Your task to perform on an android device: set an alarm Image 0: 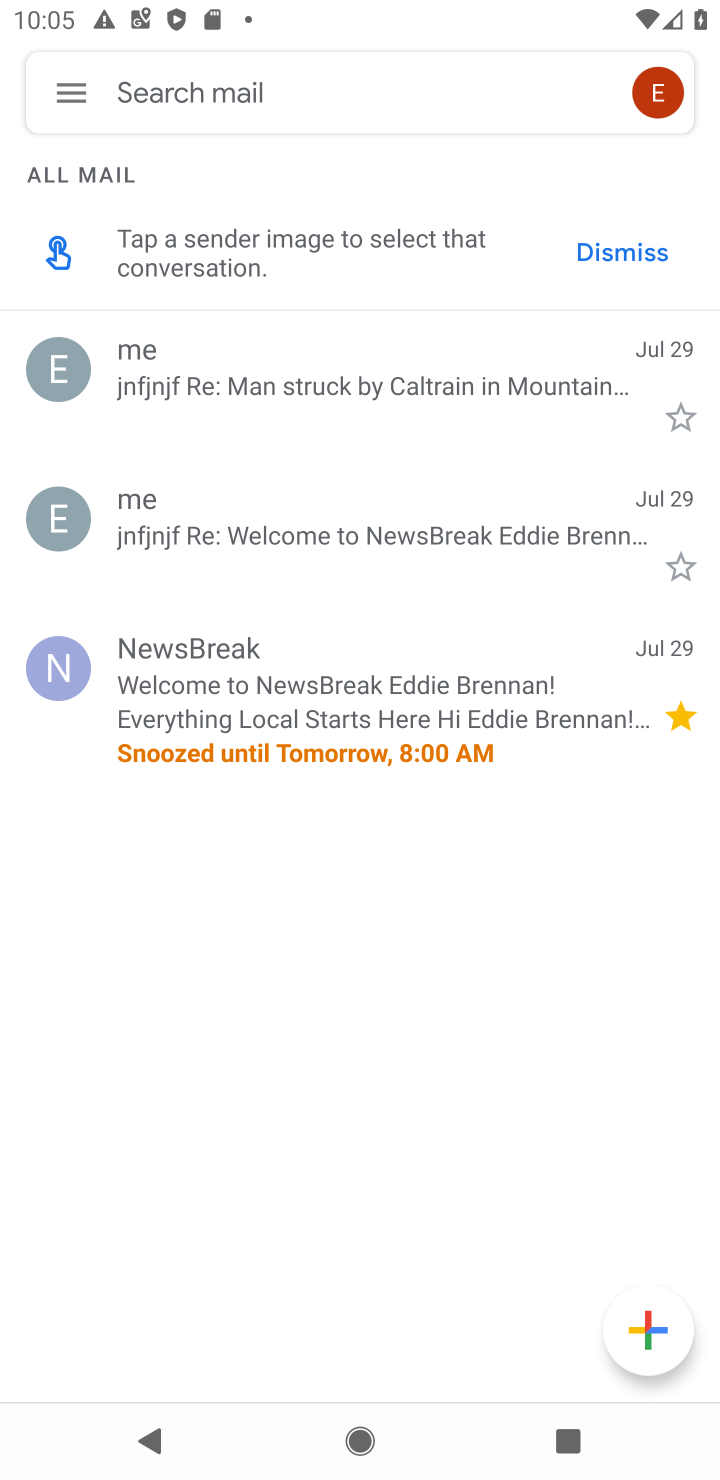
Step 0: press home button
Your task to perform on an android device: set an alarm Image 1: 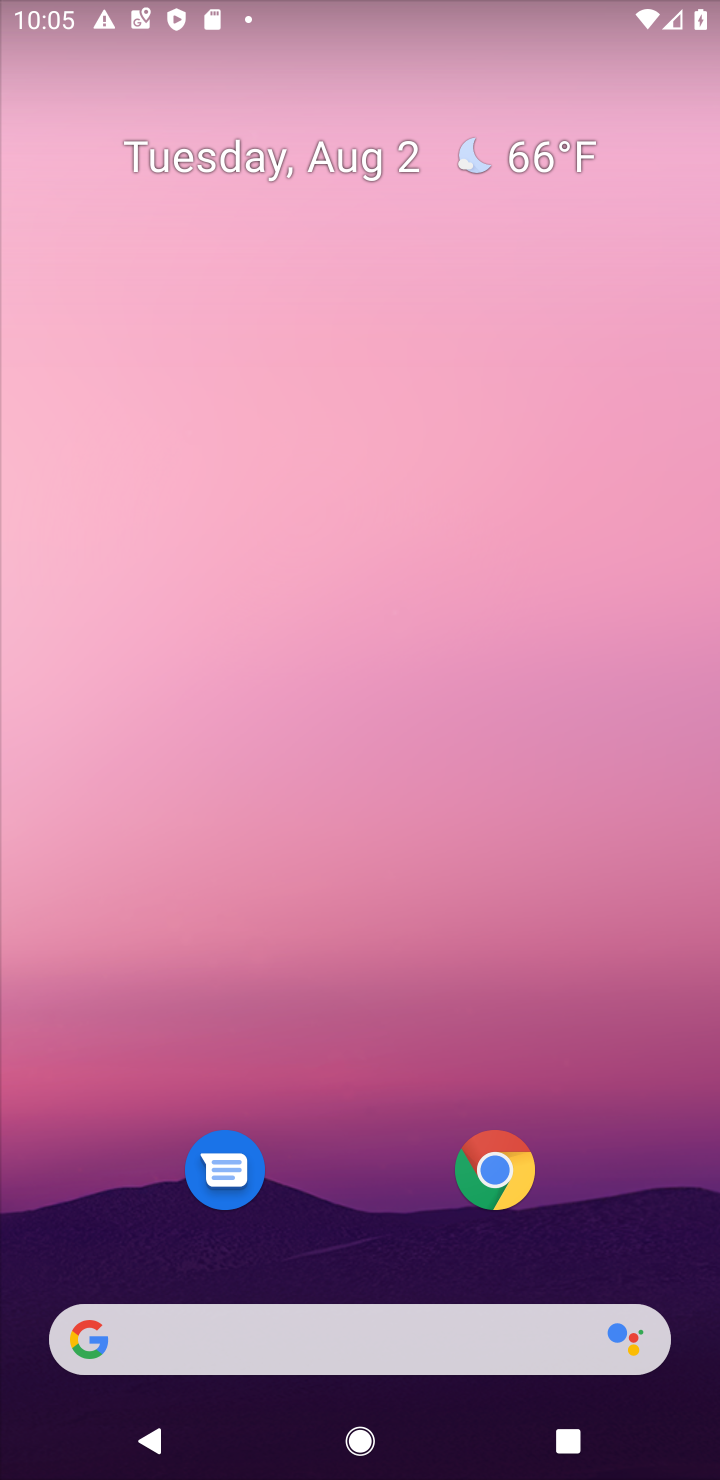
Step 1: drag from (310, 1153) to (198, 276)
Your task to perform on an android device: set an alarm Image 2: 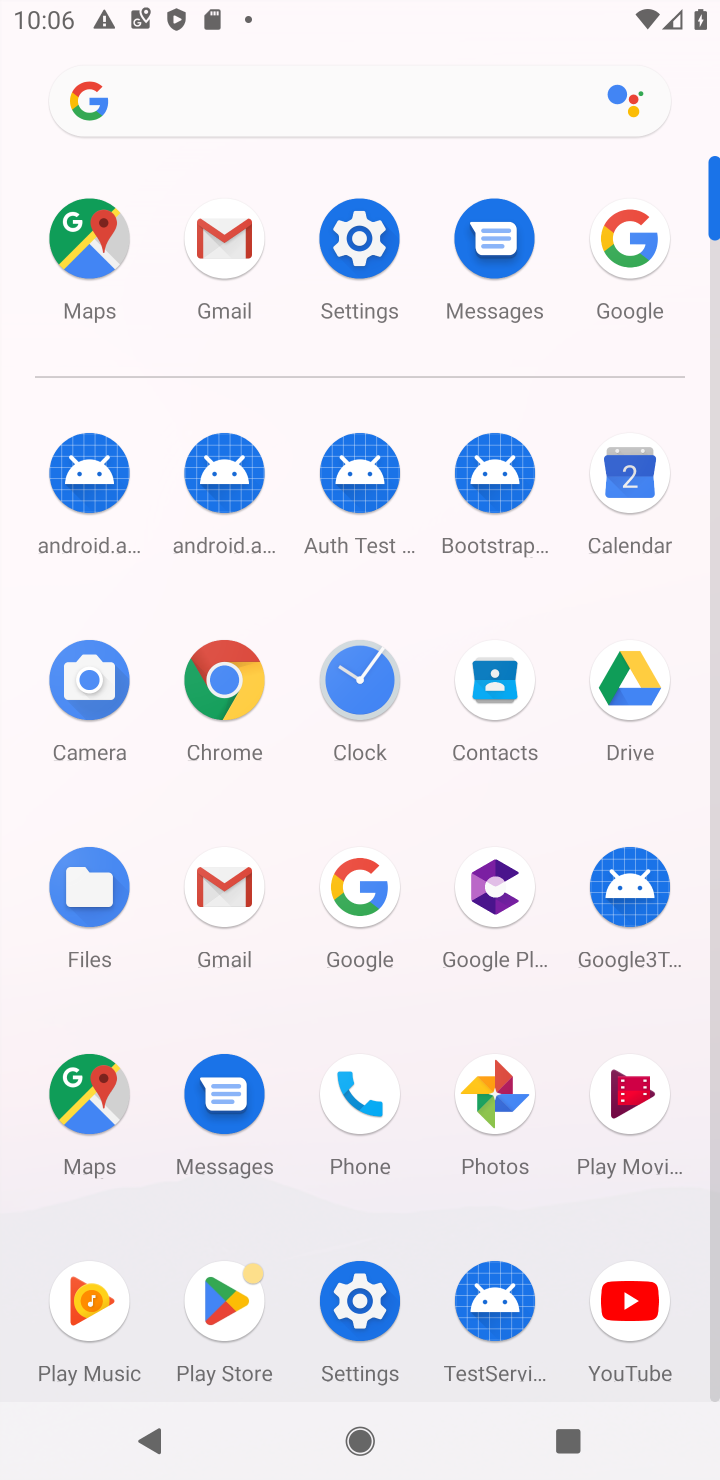
Step 2: click (351, 693)
Your task to perform on an android device: set an alarm Image 3: 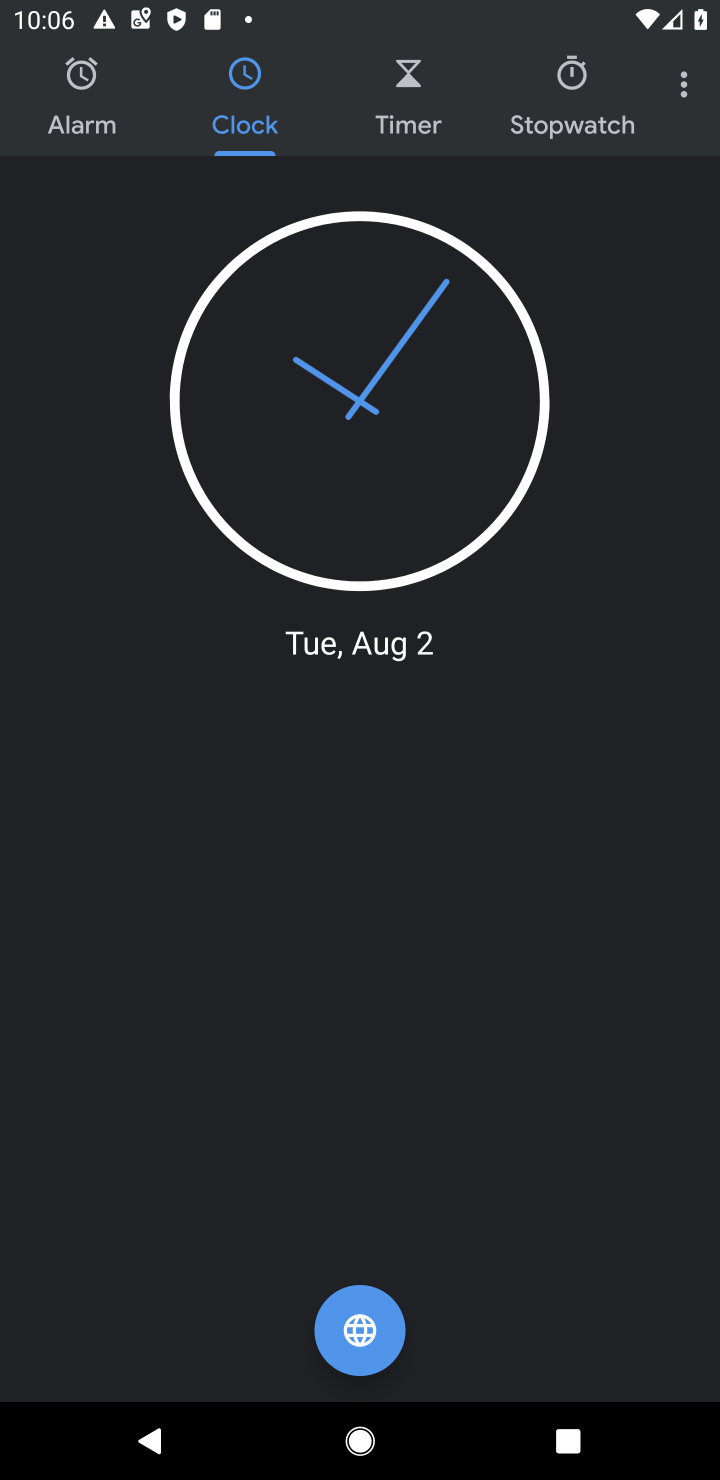
Step 3: click (62, 123)
Your task to perform on an android device: set an alarm Image 4: 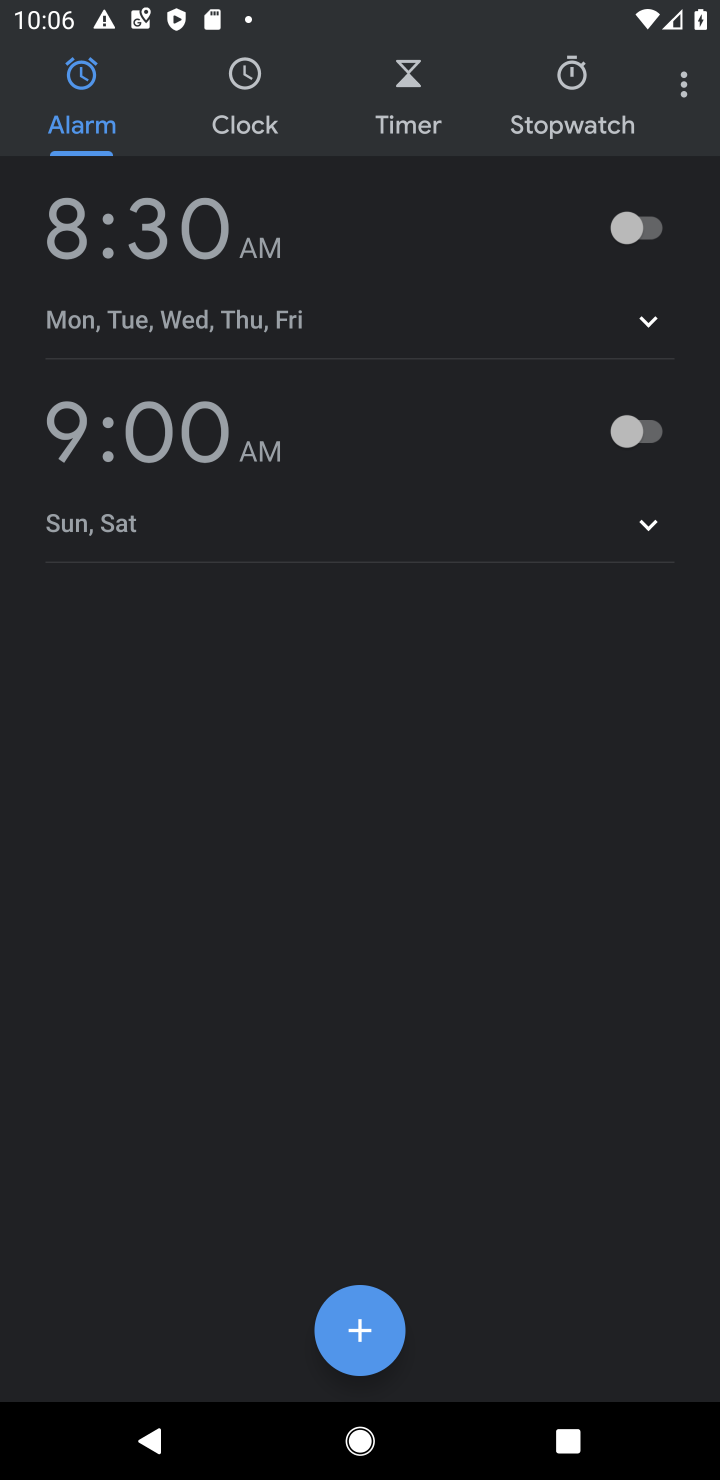
Step 4: click (658, 246)
Your task to perform on an android device: set an alarm Image 5: 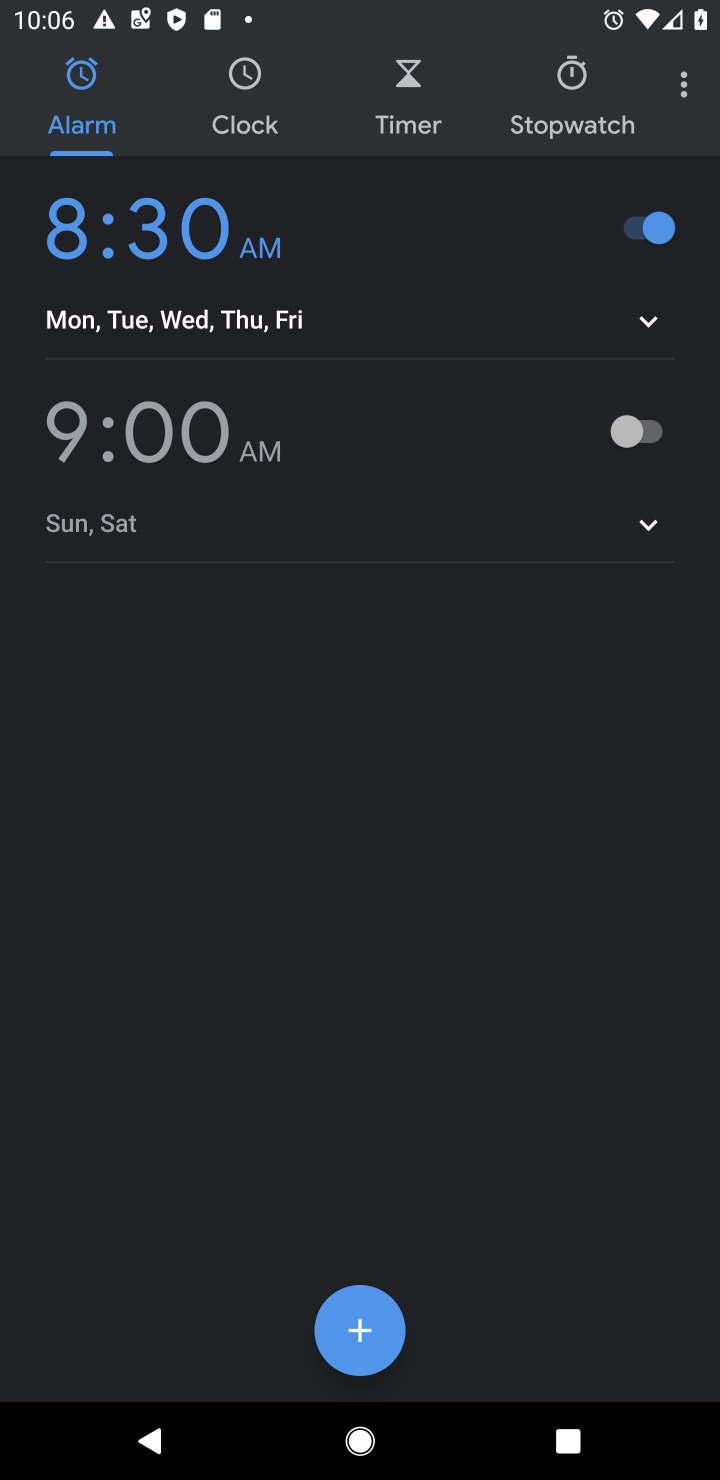
Step 5: task complete